Your task to perform on an android device: change keyboard looks Image 0: 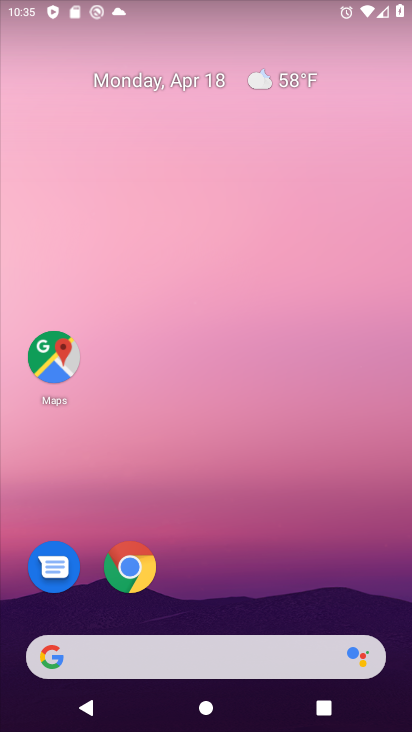
Step 0: drag from (202, 673) to (160, 51)
Your task to perform on an android device: change keyboard looks Image 1: 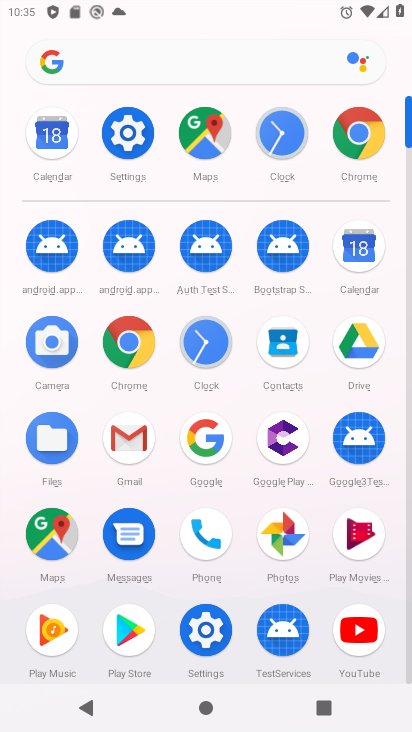
Step 1: click (119, 136)
Your task to perform on an android device: change keyboard looks Image 2: 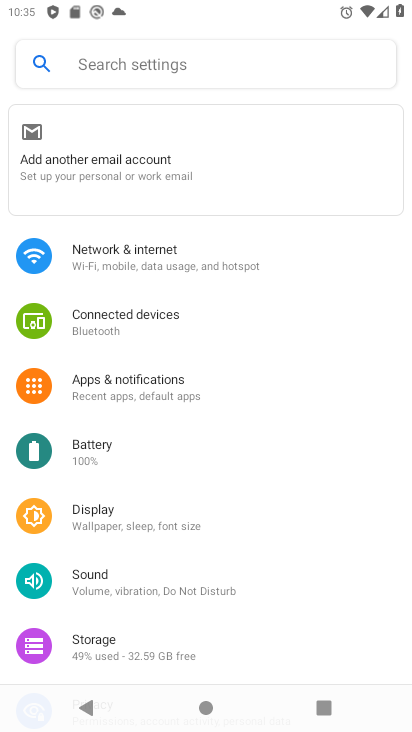
Step 2: drag from (204, 646) to (175, 81)
Your task to perform on an android device: change keyboard looks Image 3: 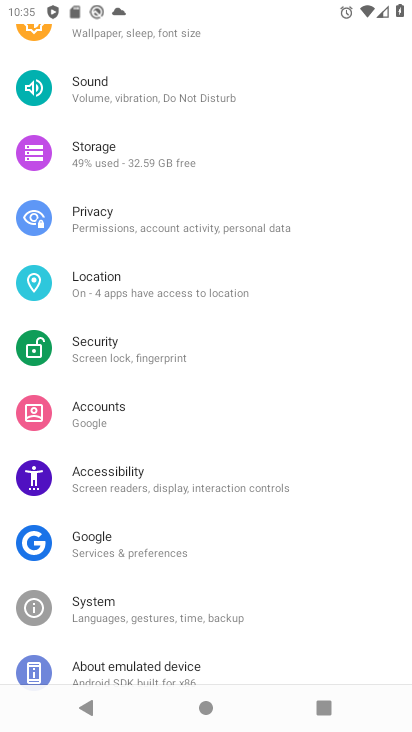
Step 3: drag from (228, 653) to (227, 111)
Your task to perform on an android device: change keyboard looks Image 4: 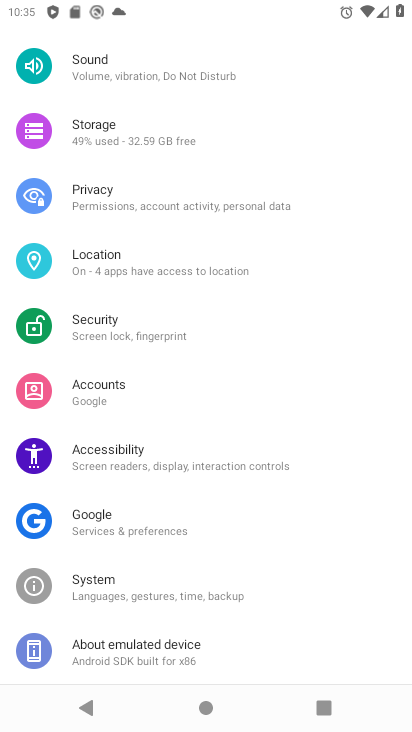
Step 4: click (120, 593)
Your task to perform on an android device: change keyboard looks Image 5: 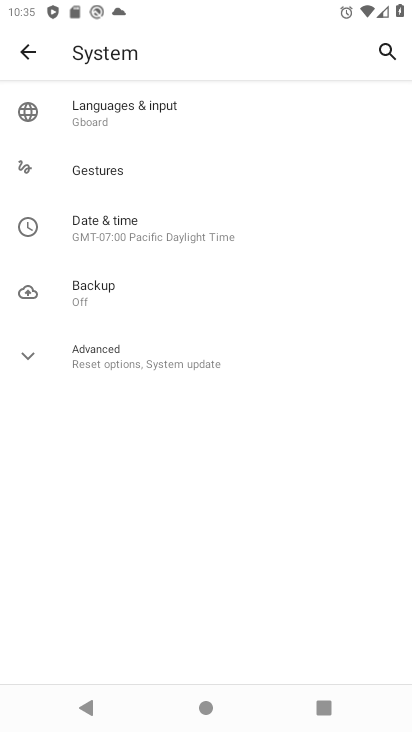
Step 5: click (103, 106)
Your task to perform on an android device: change keyboard looks Image 6: 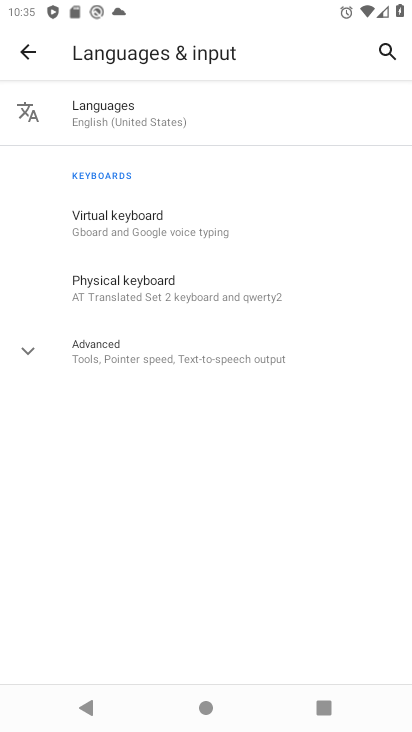
Step 6: click (123, 214)
Your task to perform on an android device: change keyboard looks Image 7: 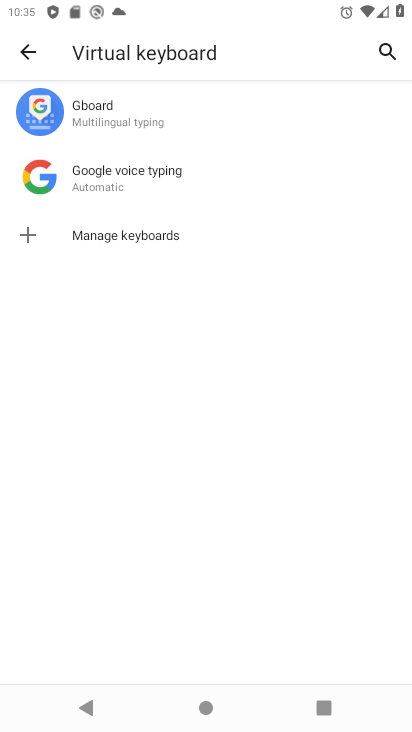
Step 7: click (90, 120)
Your task to perform on an android device: change keyboard looks Image 8: 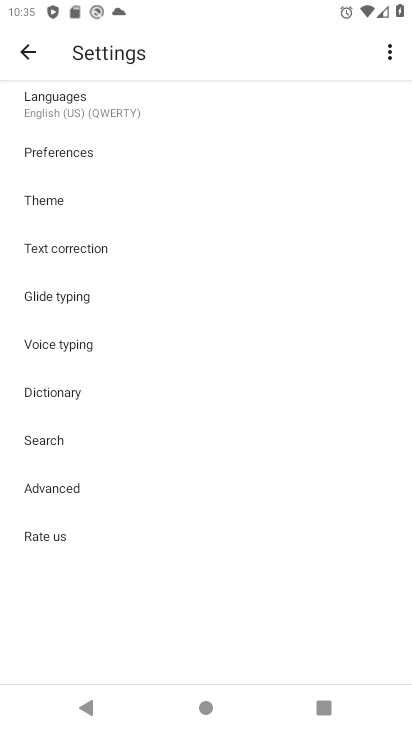
Step 8: click (49, 200)
Your task to perform on an android device: change keyboard looks Image 9: 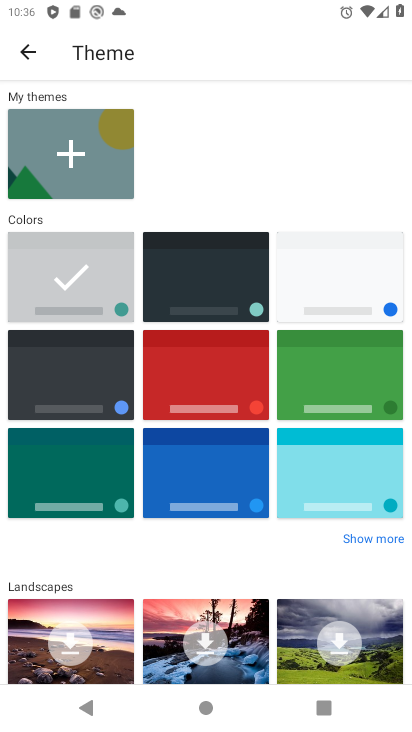
Step 9: click (203, 269)
Your task to perform on an android device: change keyboard looks Image 10: 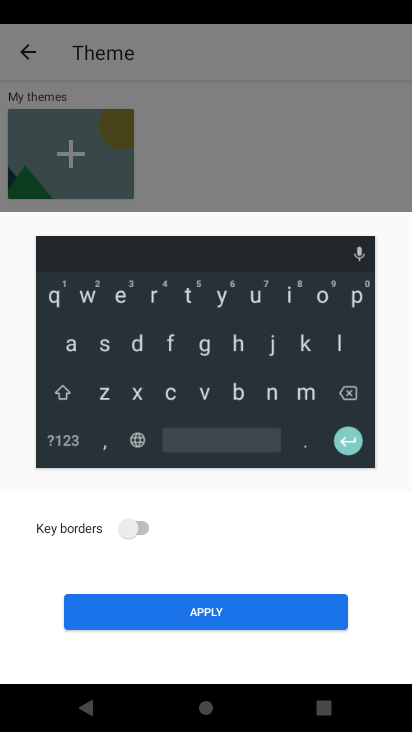
Step 10: click (139, 525)
Your task to perform on an android device: change keyboard looks Image 11: 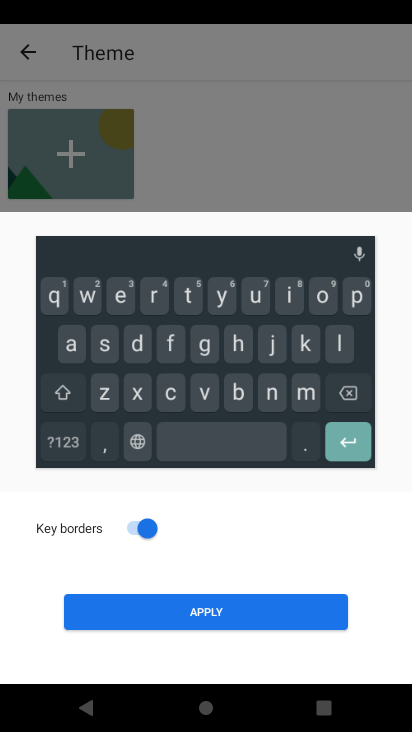
Step 11: click (209, 612)
Your task to perform on an android device: change keyboard looks Image 12: 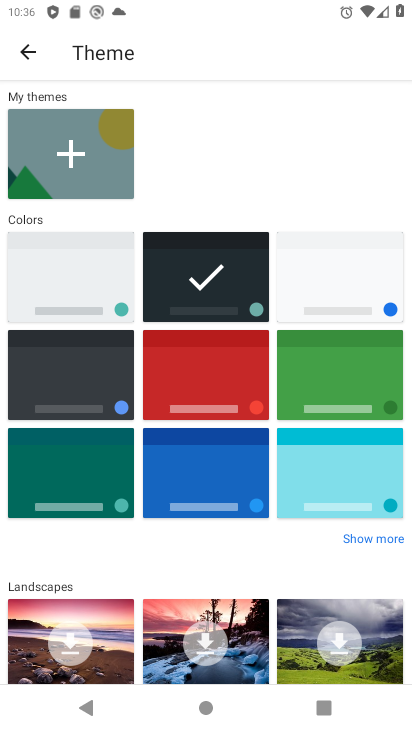
Step 12: task complete